Your task to perform on an android device: turn on priority inbox in the gmail app Image 0: 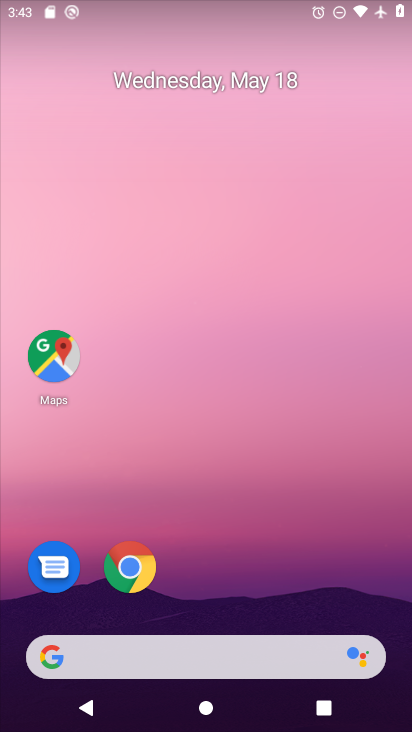
Step 0: drag from (294, 593) to (286, 137)
Your task to perform on an android device: turn on priority inbox in the gmail app Image 1: 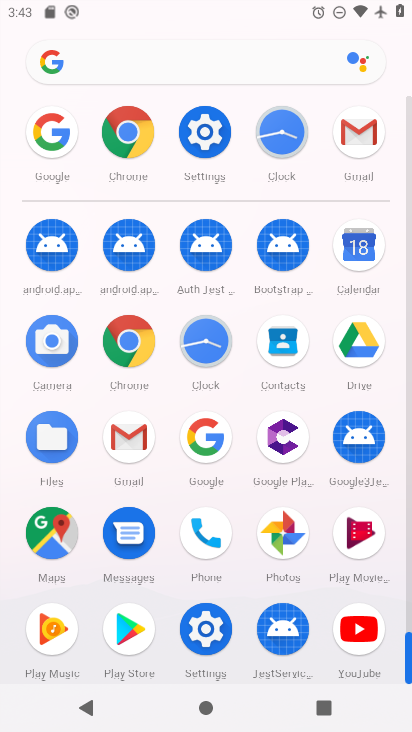
Step 1: click (354, 135)
Your task to perform on an android device: turn on priority inbox in the gmail app Image 2: 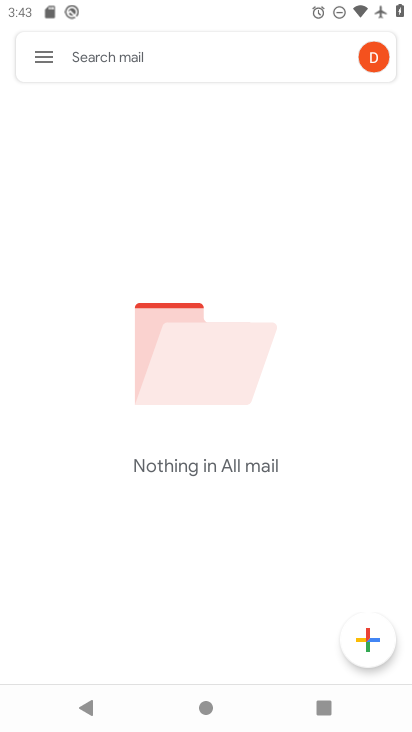
Step 2: click (45, 55)
Your task to perform on an android device: turn on priority inbox in the gmail app Image 3: 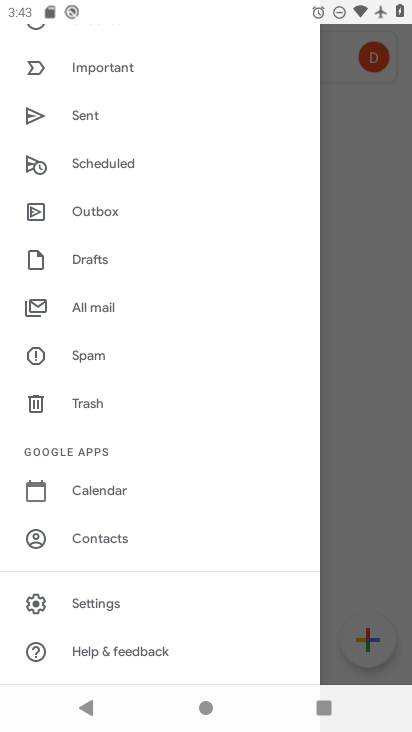
Step 3: click (115, 600)
Your task to perform on an android device: turn on priority inbox in the gmail app Image 4: 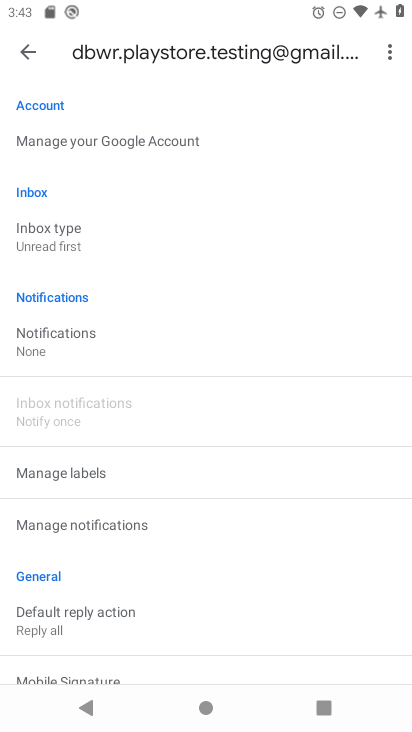
Step 4: drag from (153, 571) to (184, 299)
Your task to perform on an android device: turn on priority inbox in the gmail app Image 5: 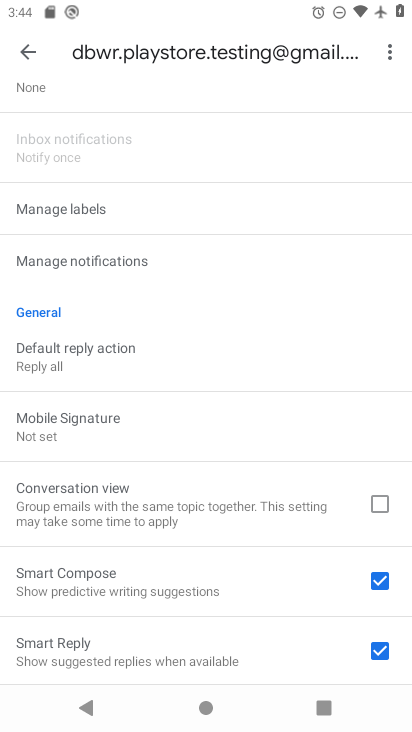
Step 5: drag from (170, 200) to (159, 459)
Your task to perform on an android device: turn on priority inbox in the gmail app Image 6: 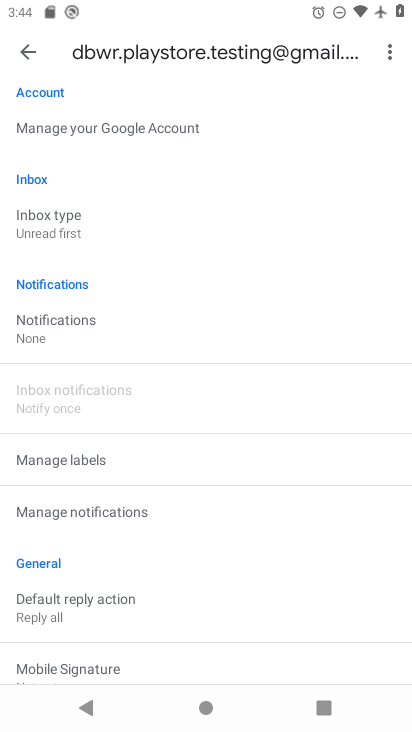
Step 6: click (74, 225)
Your task to perform on an android device: turn on priority inbox in the gmail app Image 7: 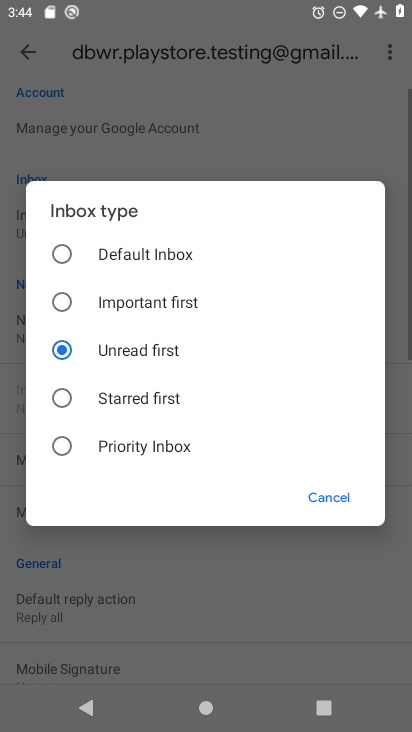
Step 7: click (141, 454)
Your task to perform on an android device: turn on priority inbox in the gmail app Image 8: 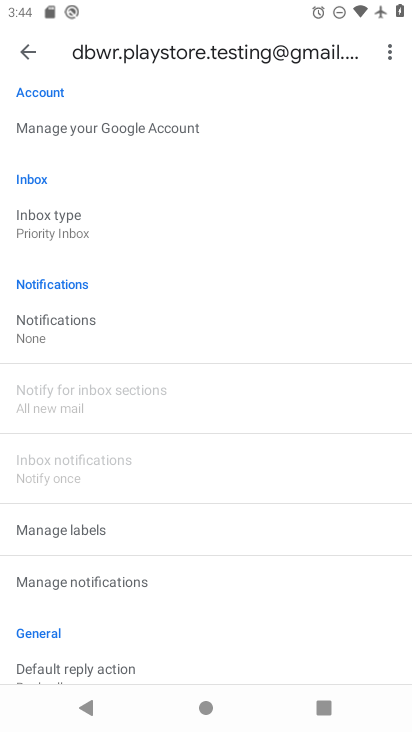
Step 8: task complete